Your task to perform on an android device: Search for a dining table on crateandbarrel.com Image 0: 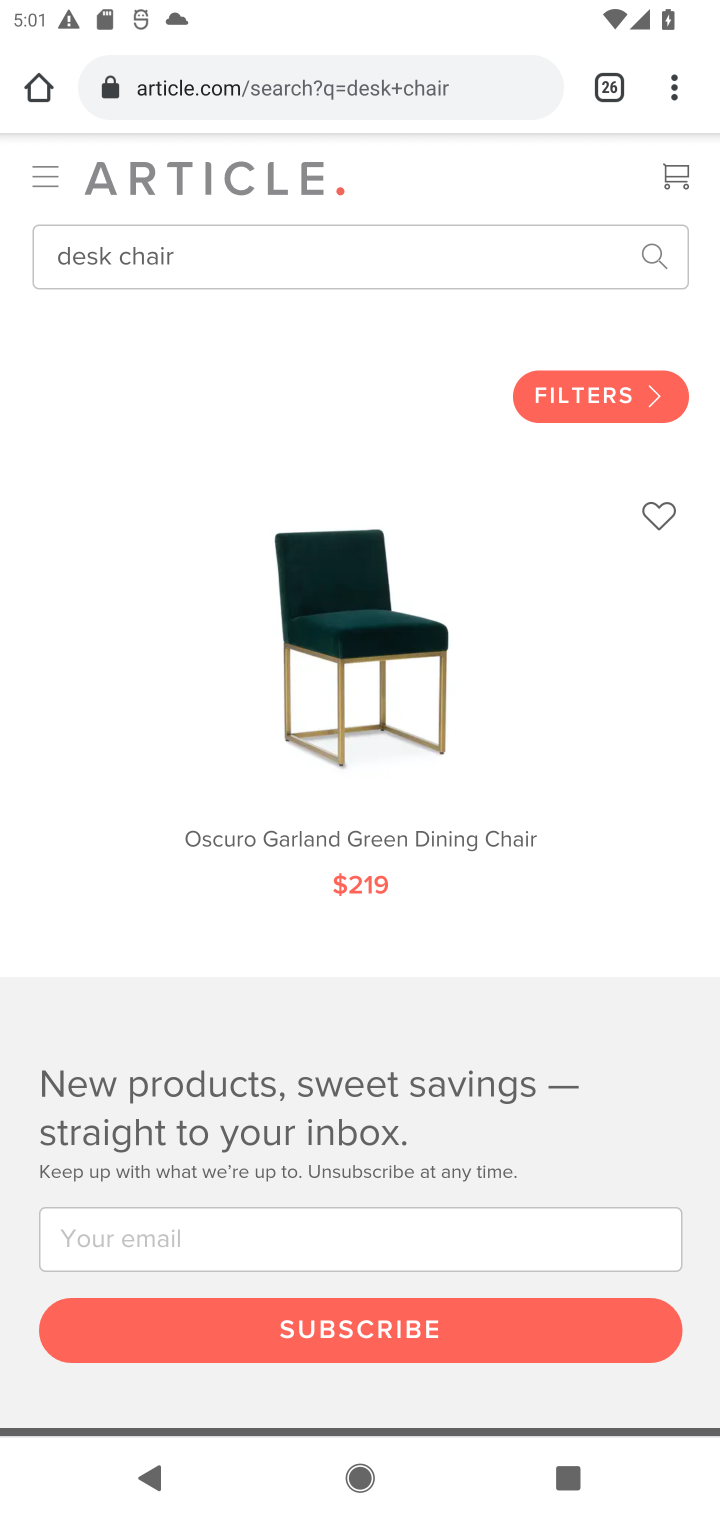
Step 0: press home button
Your task to perform on an android device: Search for a dining table on crateandbarrel.com Image 1: 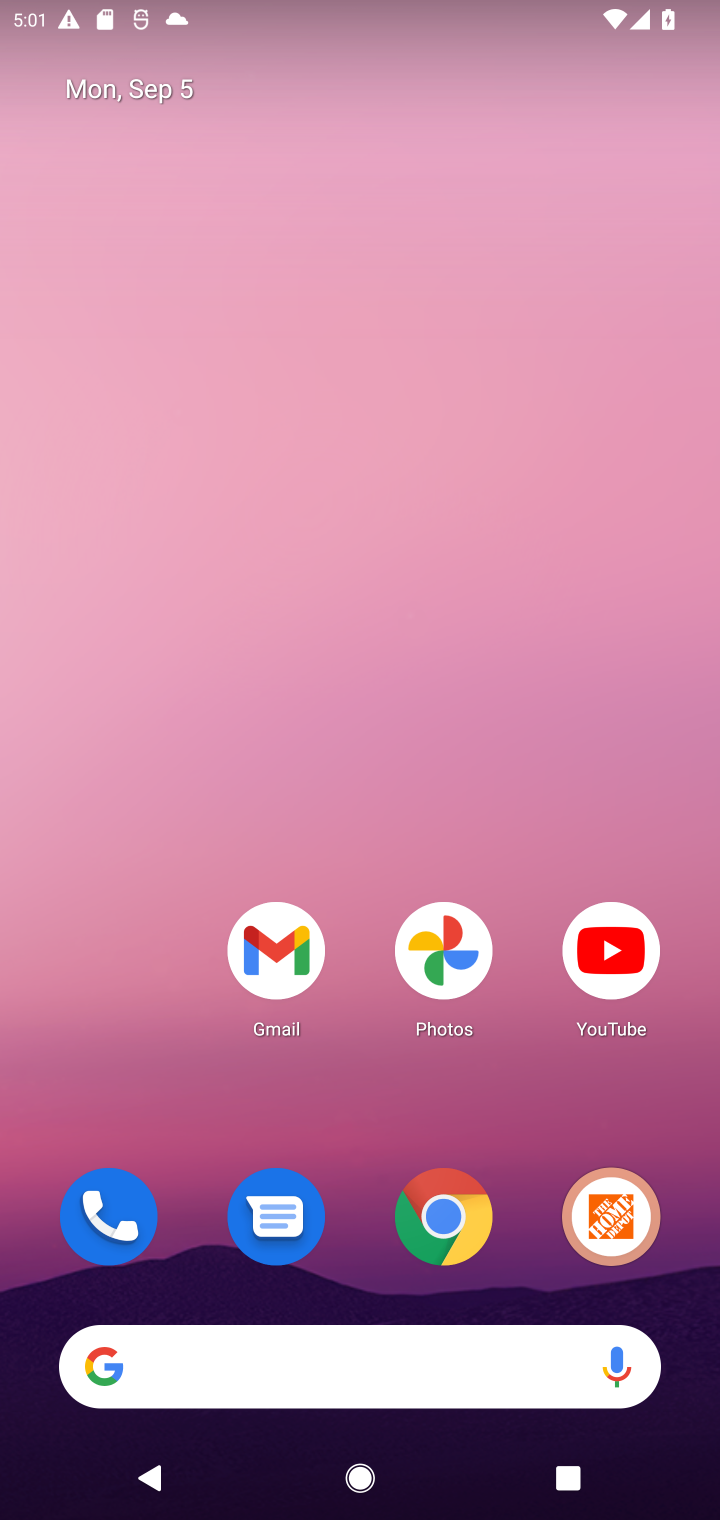
Step 1: click (95, 1352)
Your task to perform on an android device: Search for a dining table on crateandbarrel.com Image 2: 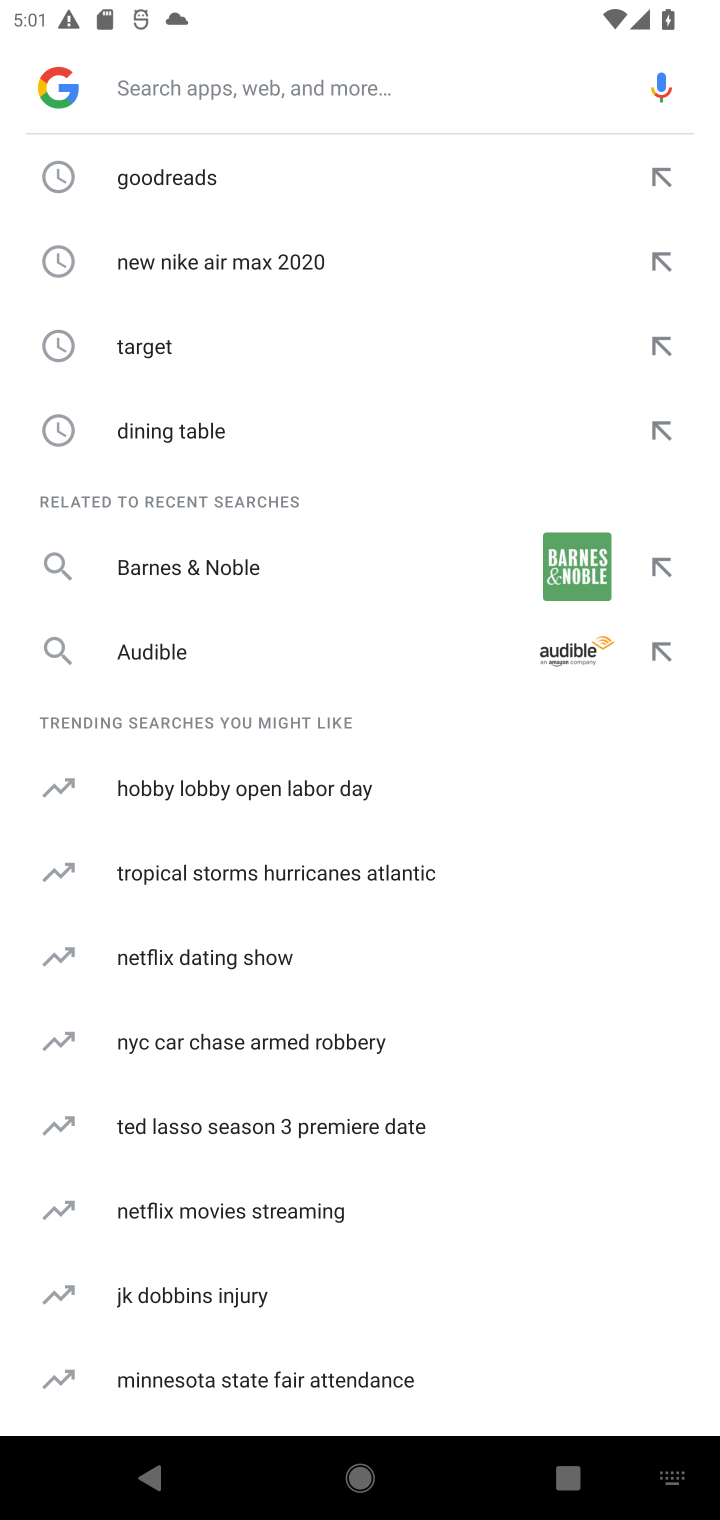
Step 2: type "crateandbarrel.com"
Your task to perform on an android device: Search for a dining table on crateandbarrel.com Image 3: 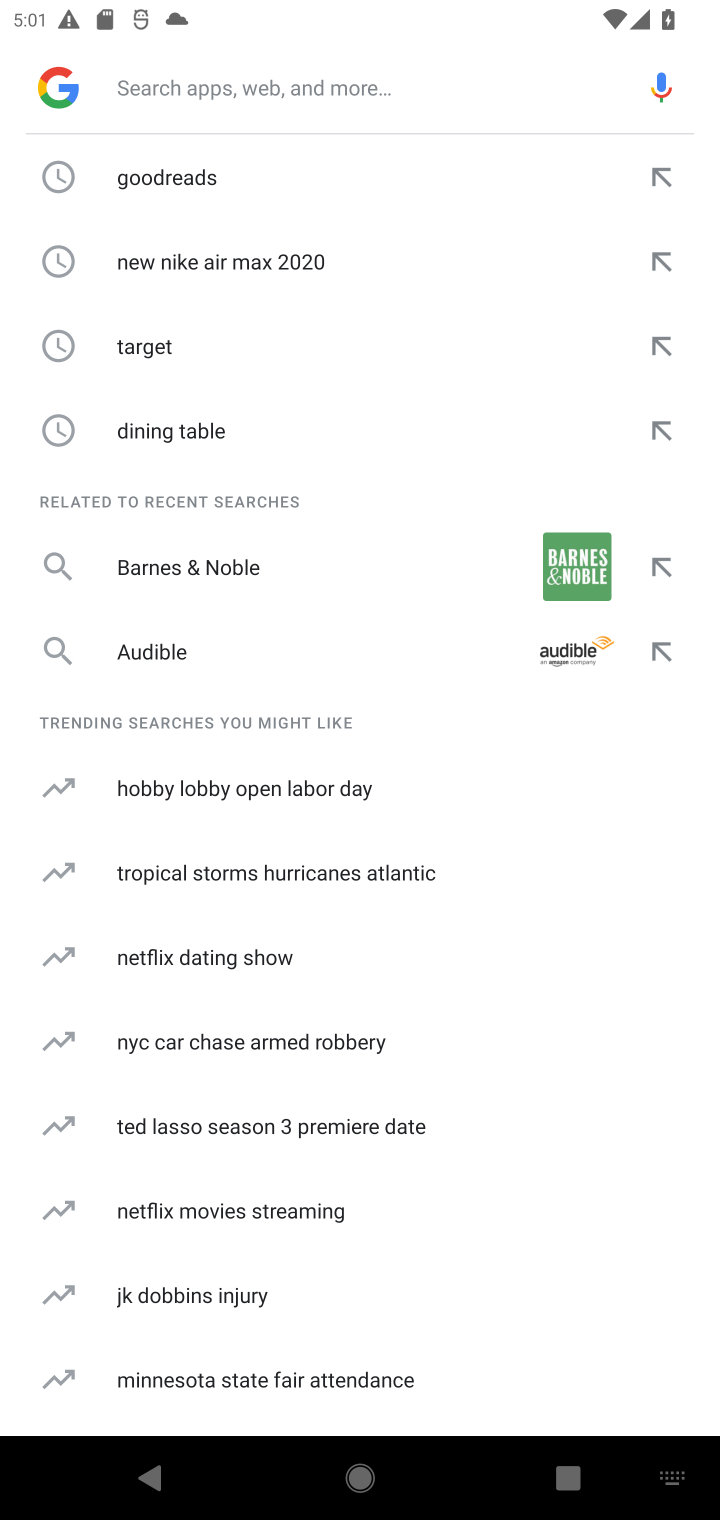
Step 3: click (232, 79)
Your task to perform on an android device: Search for a dining table on crateandbarrel.com Image 4: 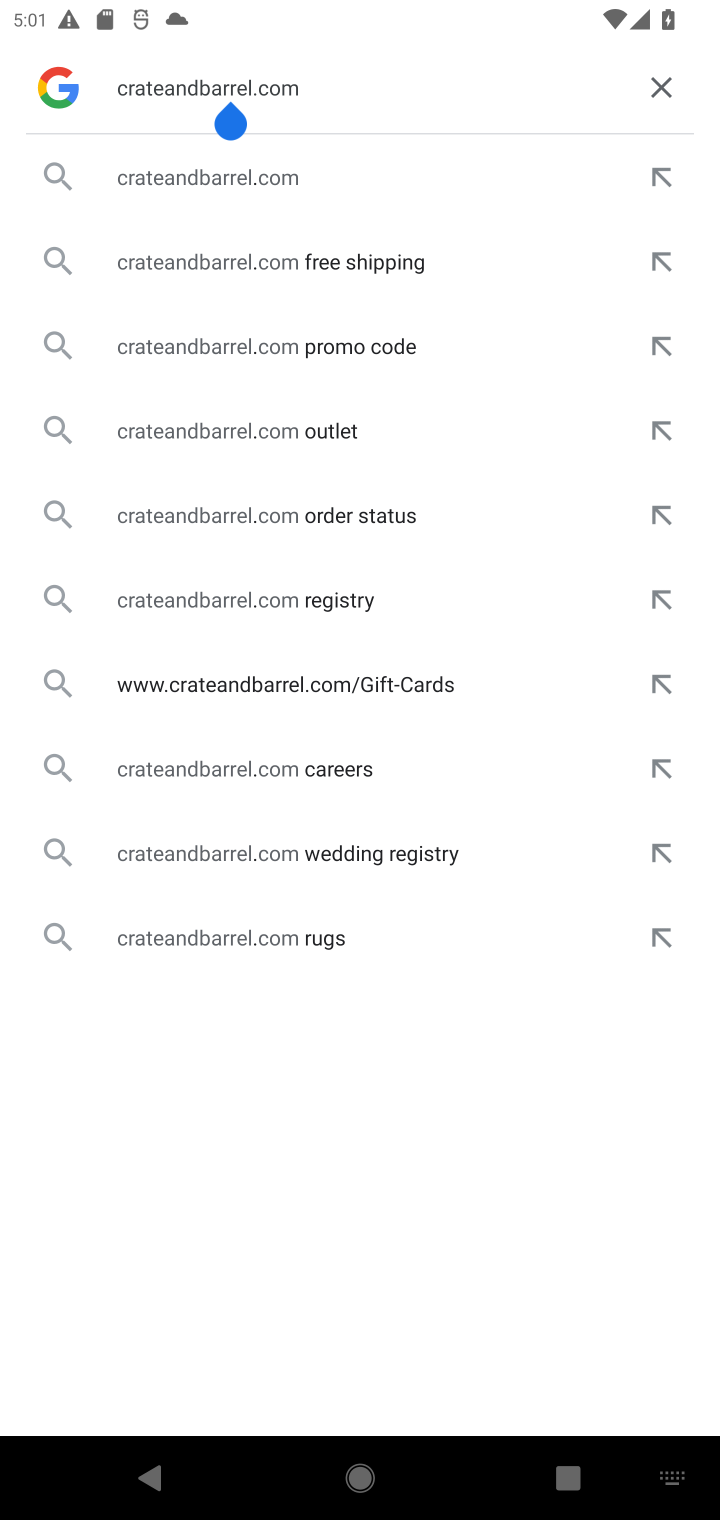
Step 4: press enter
Your task to perform on an android device: Search for a dining table on crateandbarrel.com Image 5: 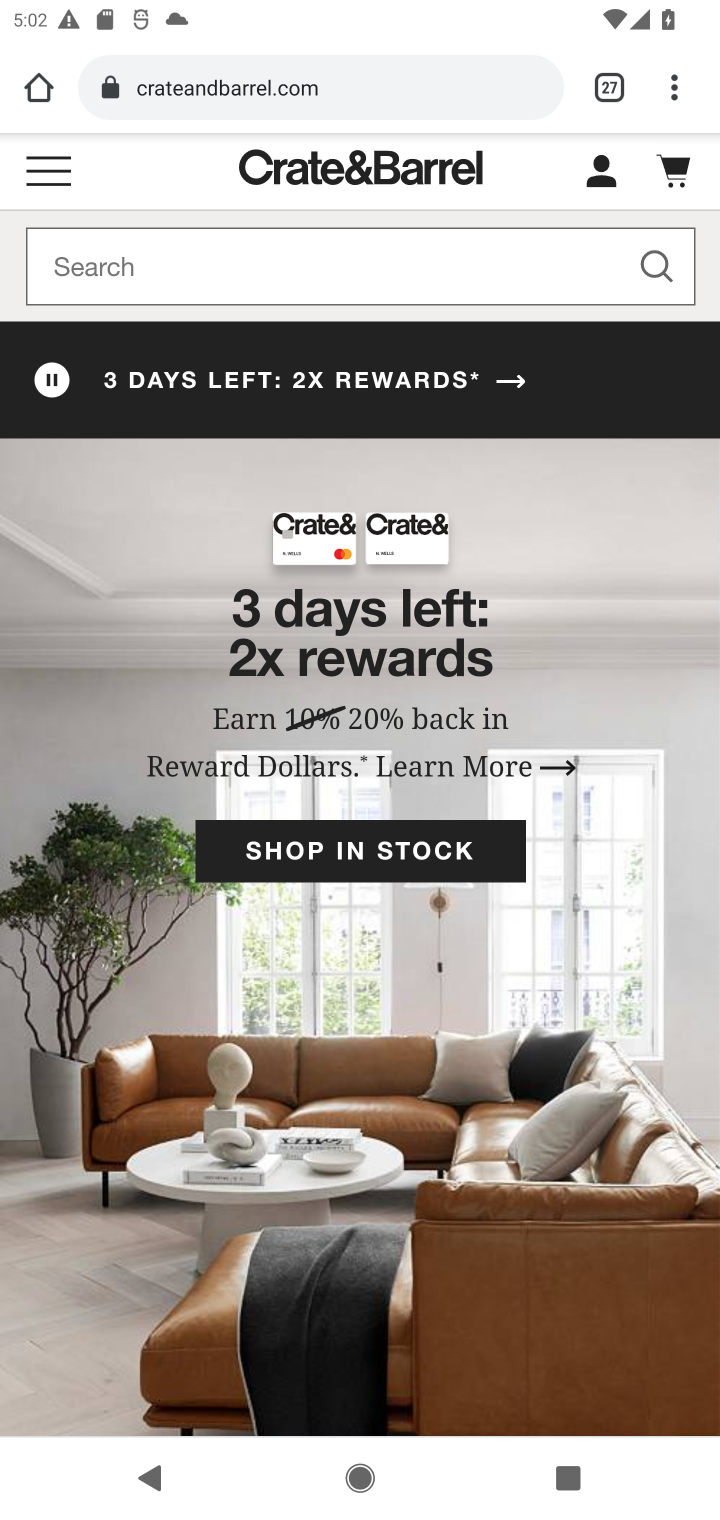
Step 5: click (118, 269)
Your task to perform on an android device: Search for a dining table on crateandbarrel.com Image 6: 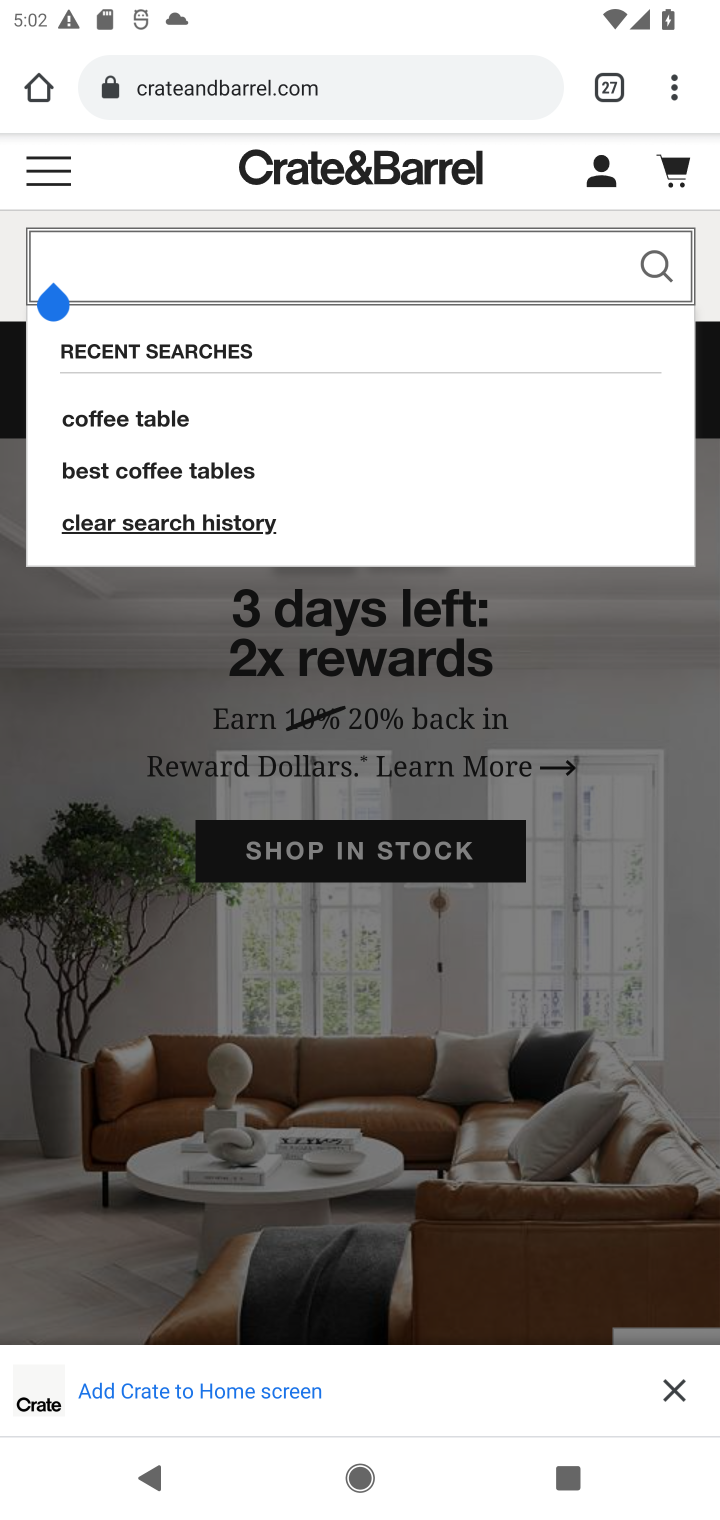
Step 6: type "dining table"
Your task to perform on an android device: Search for a dining table on crateandbarrel.com Image 7: 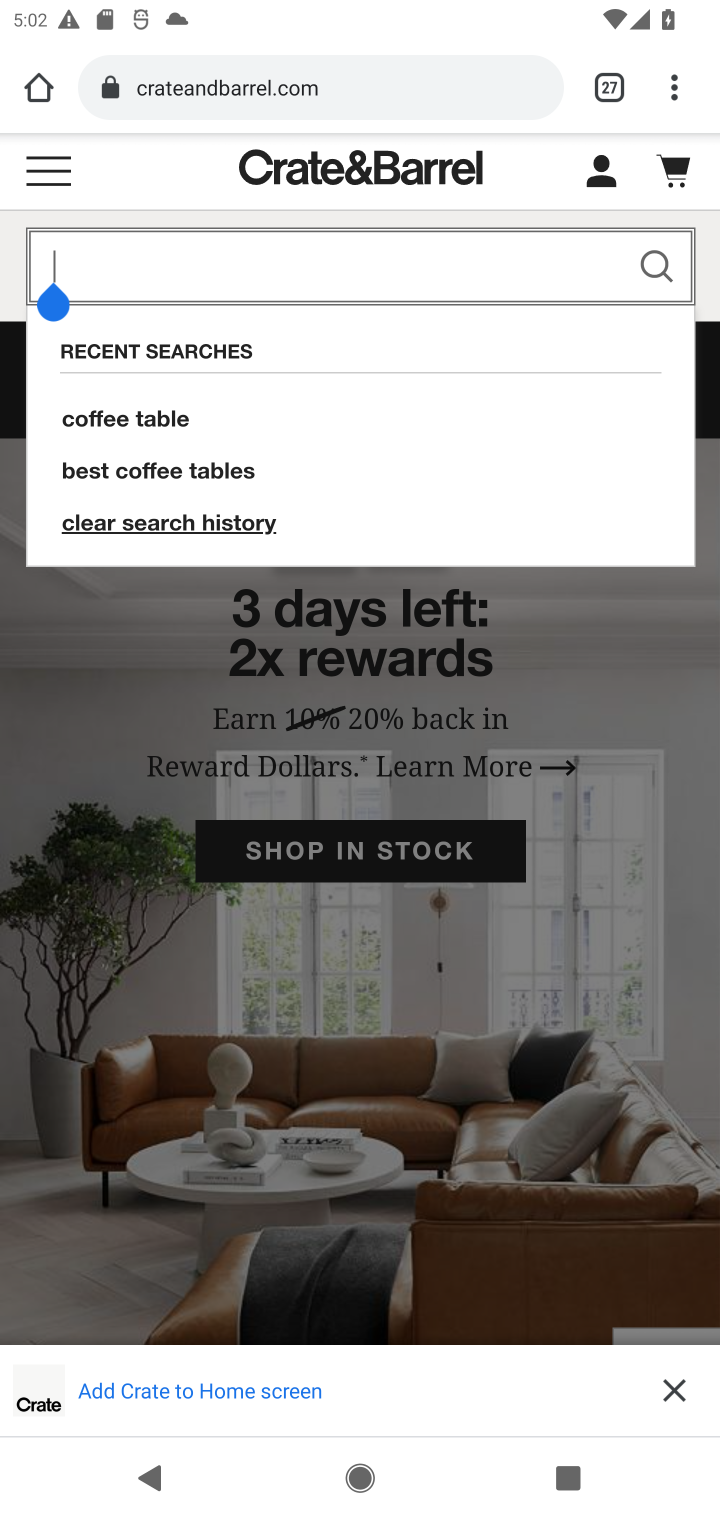
Step 7: click (187, 278)
Your task to perform on an android device: Search for a dining table on crateandbarrel.com Image 8: 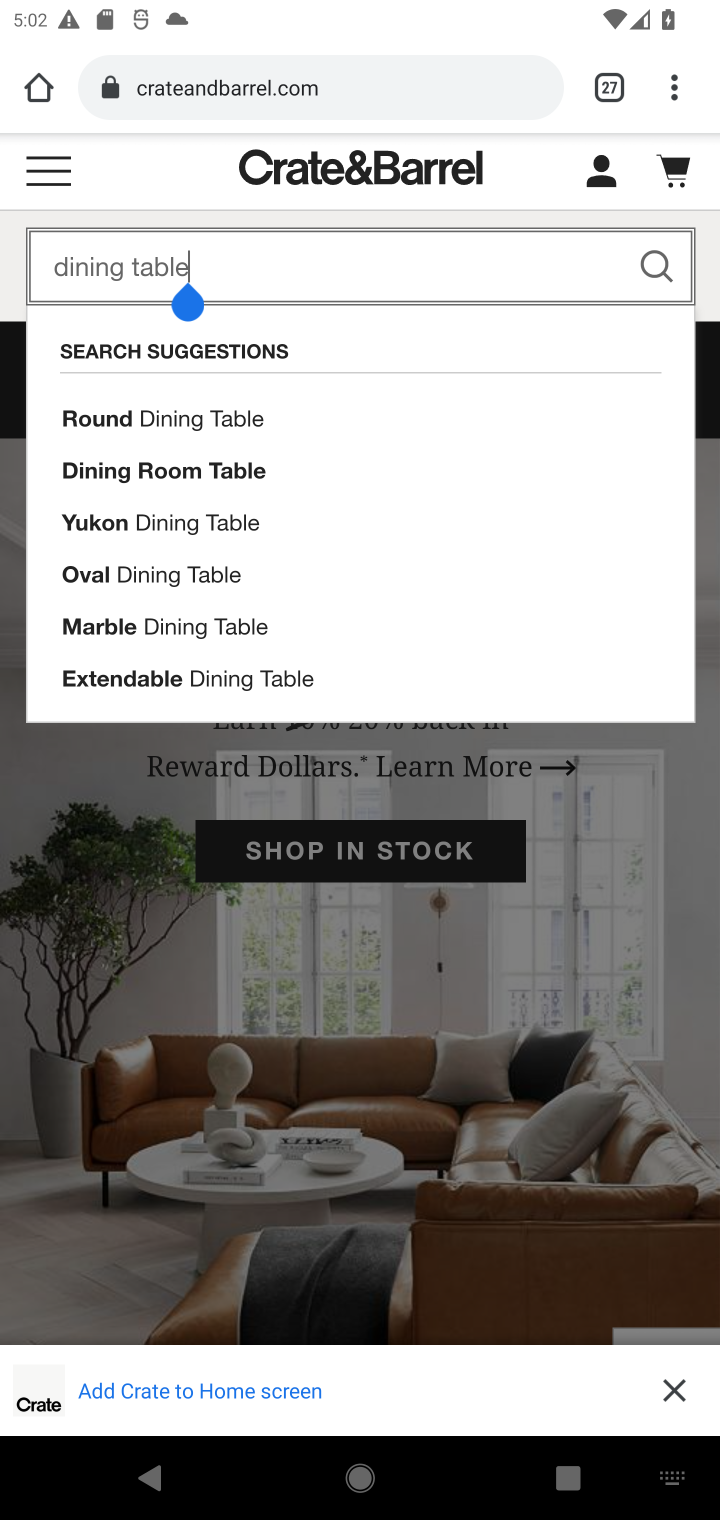
Step 8: press enter
Your task to perform on an android device: Search for a dining table on crateandbarrel.com Image 9: 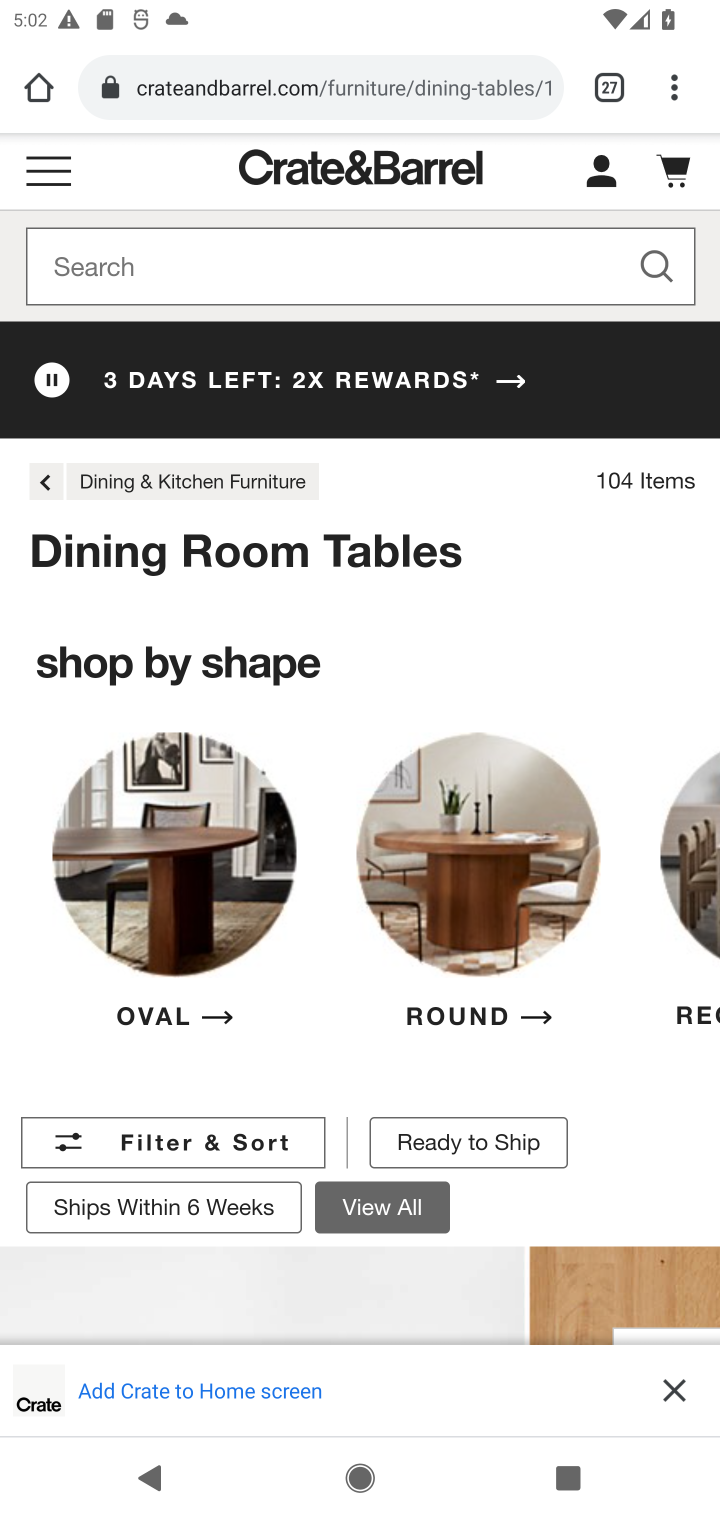
Step 9: task complete